Your task to perform on an android device: Open calendar and show me the fourth week of next month Image 0: 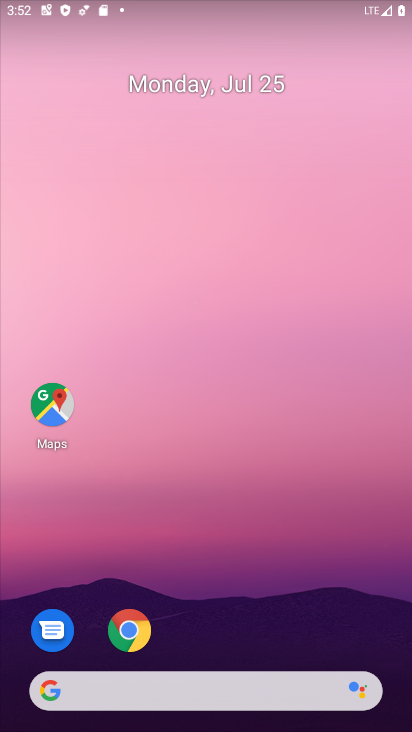
Step 0: drag from (197, 636) to (155, 0)
Your task to perform on an android device: Open calendar and show me the fourth week of next month Image 1: 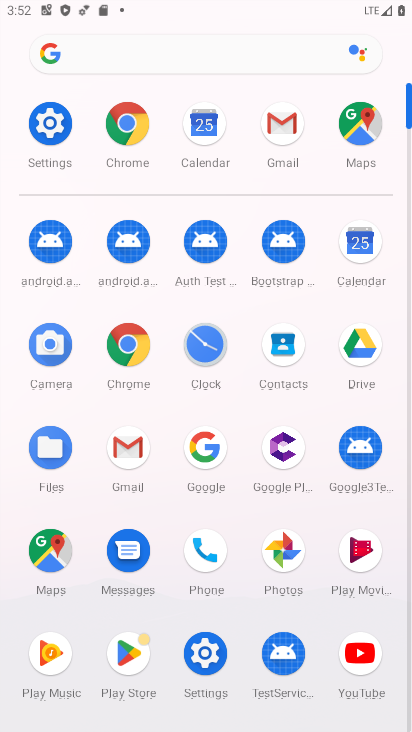
Step 1: click (354, 261)
Your task to perform on an android device: Open calendar and show me the fourth week of next month Image 2: 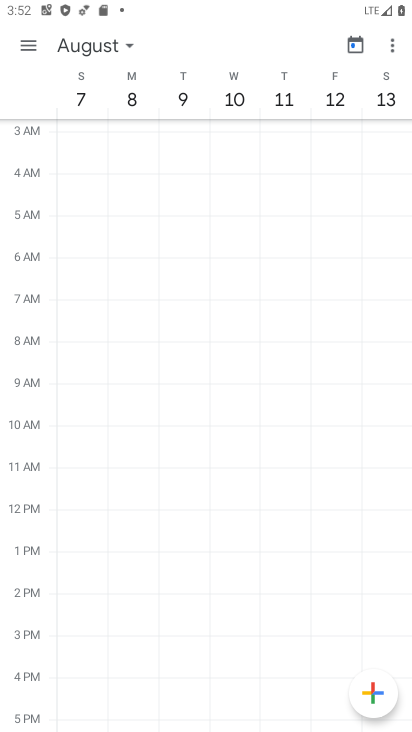
Step 2: task complete